Your task to perform on an android device: Open settings on Google Maps Image 0: 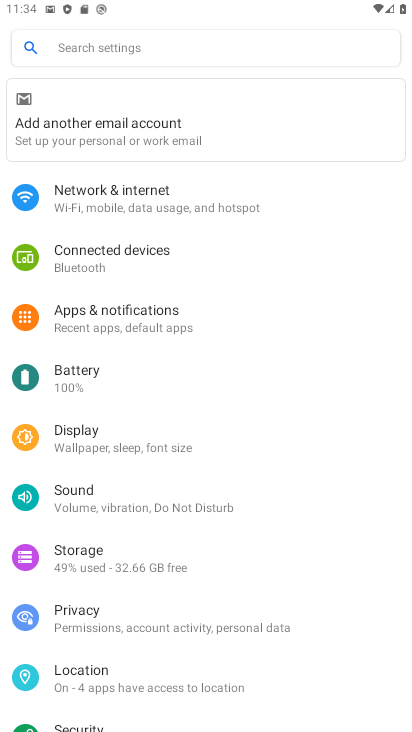
Step 0: press home button
Your task to perform on an android device: Open settings on Google Maps Image 1: 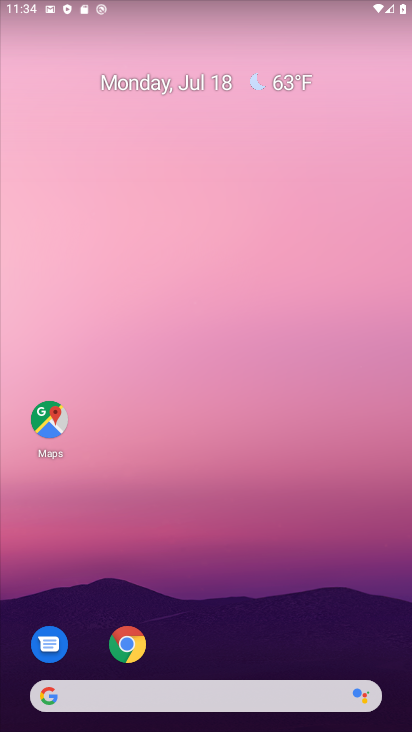
Step 1: click (42, 426)
Your task to perform on an android device: Open settings on Google Maps Image 2: 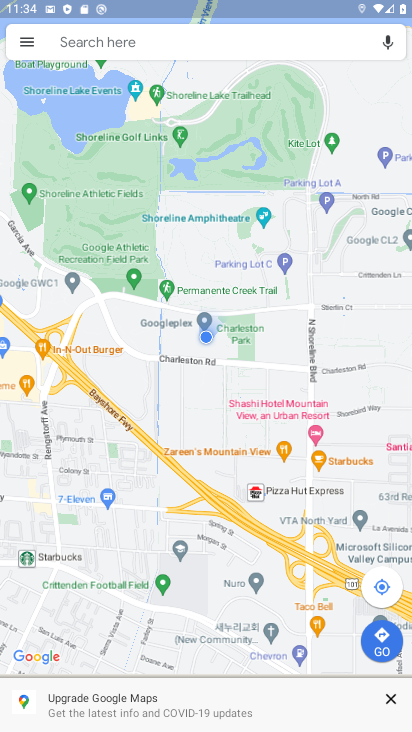
Step 2: click (63, 36)
Your task to perform on an android device: Open settings on Google Maps Image 3: 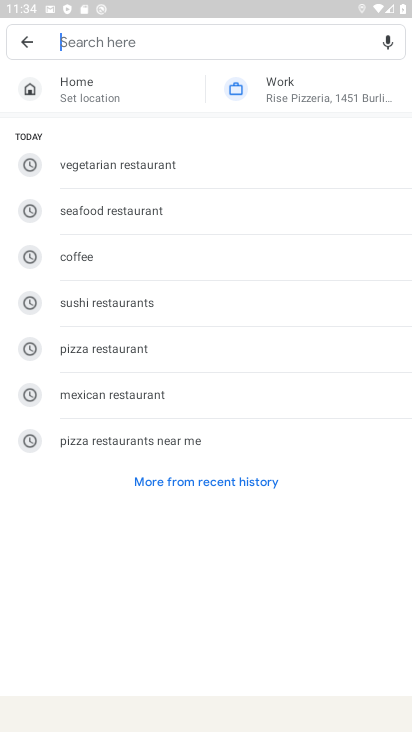
Step 3: click (63, 36)
Your task to perform on an android device: Open settings on Google Maps Image 4: 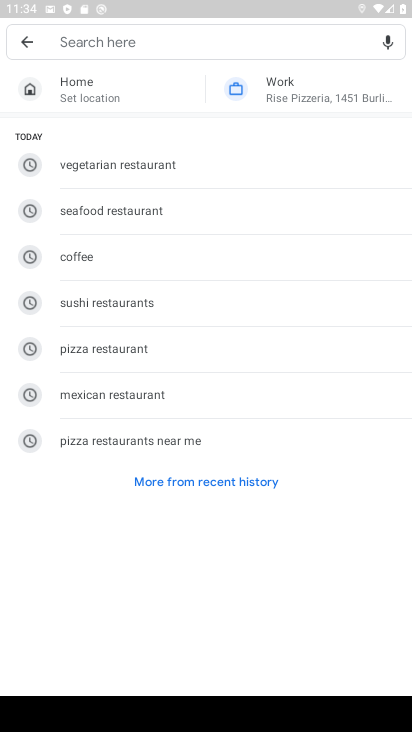
Step 4: click (74, 42)
Your task to perform on an android device: Open settings on Google Maps Image 5: 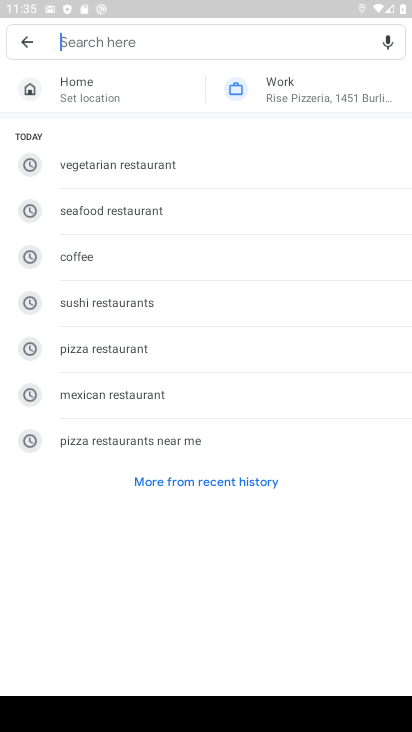
Step 5: click (28, 38)
Your task to perform on an android device: Open settings on Google Maps Image 6: 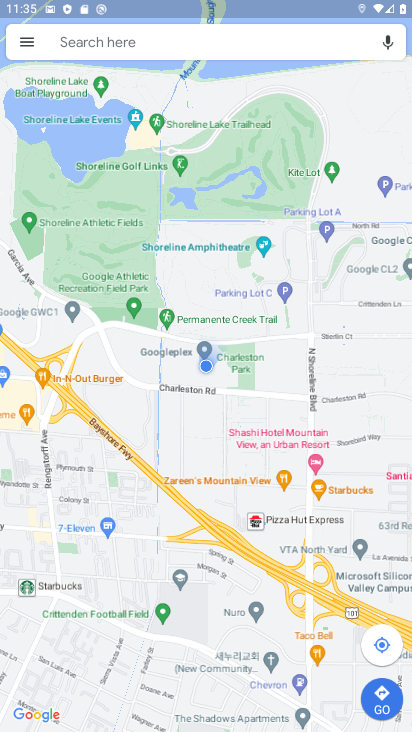
Step 6: click (16, 42)
Your task to perform on an android device: Open settings on Google Maps Image 7: 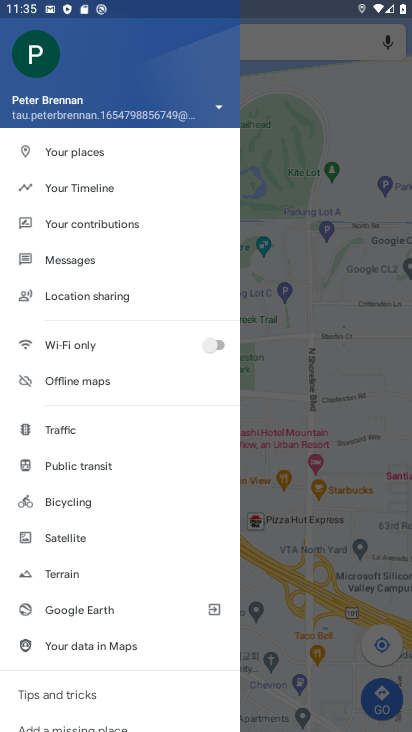
Step 7: drag from (97, 682) to (183, 241)
Your task to perform on an android device: Open settings on Google Maps Image 8: 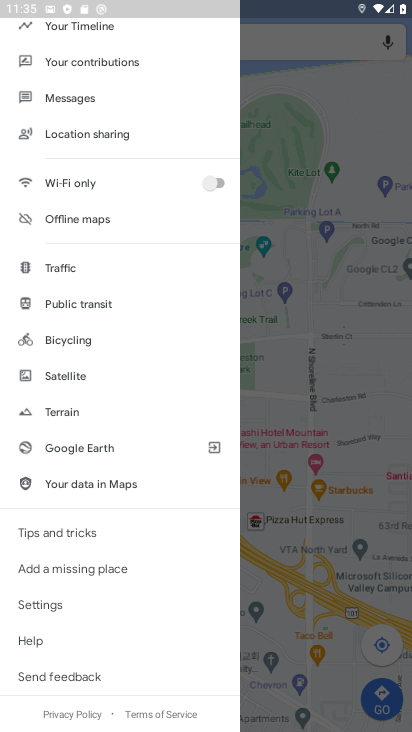
Step 8: click (33, 605)
Your task to perform on an android device: Open settings on Google Maps Image 9: 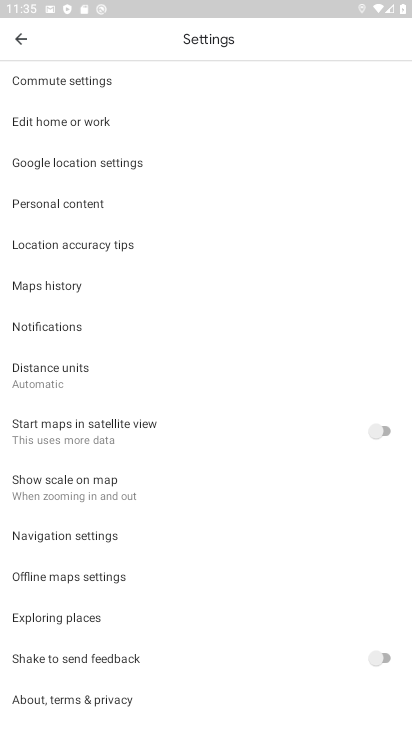
Step 9: task complete